Your task to perform on an android device: Go to Yahoo.com Image 0: 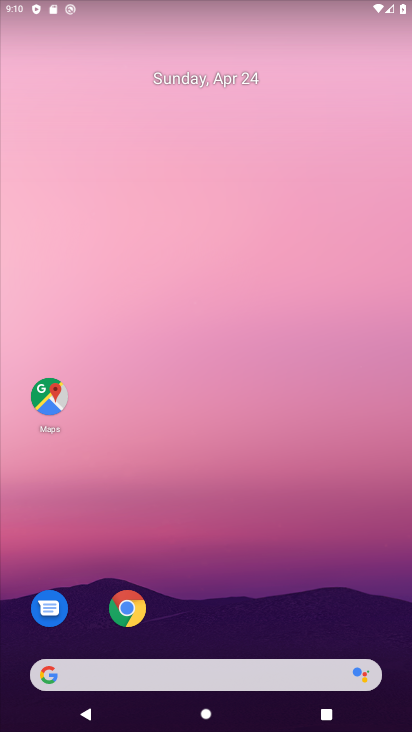
Step 0: press home button
Your task to perform on an android device: Go to Yahoo.com Image 1: 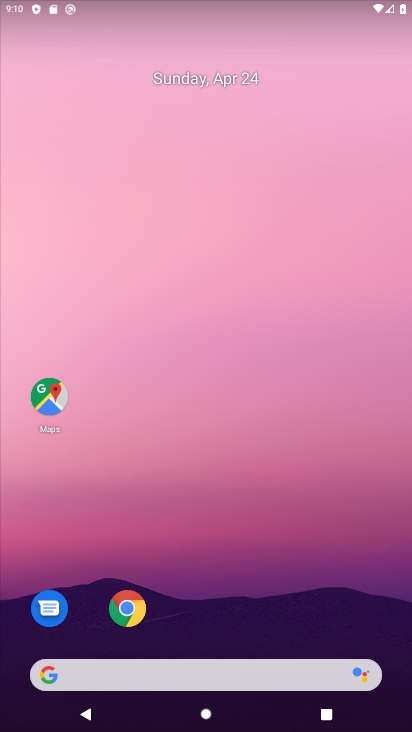
Step 1: drag from (248, 695) to (245, 238)
Your task to perform on an android device: Go to Yahoo.com Image 2: 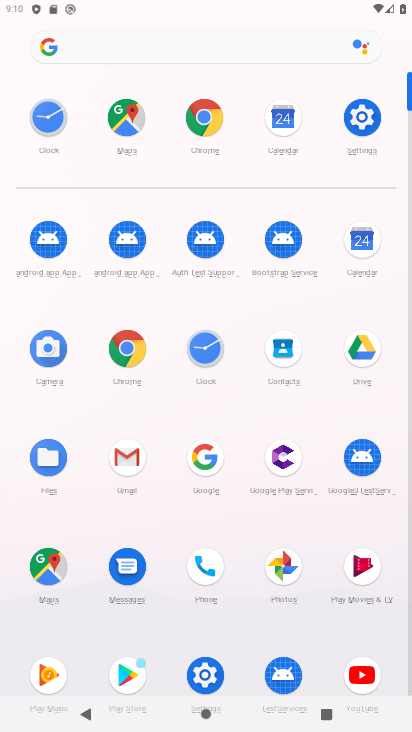
Step 2: click (196, 118)
Your task to perform on an android device: Go to Yahoo.com Image 3: 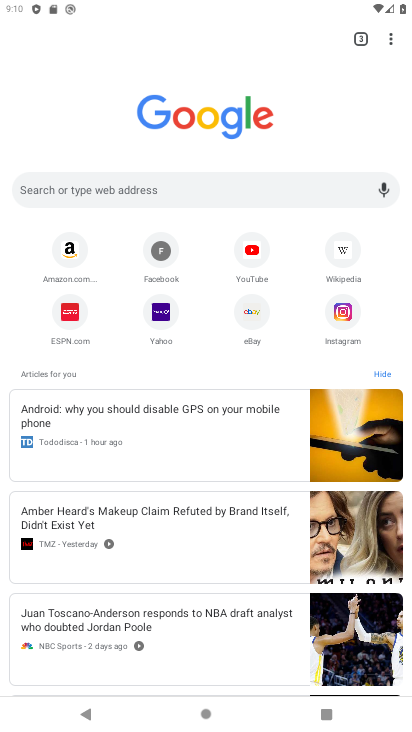
Step 3: click (140, 190)
Your task to perform on an android device: Go to Yahoo.com Image 4: 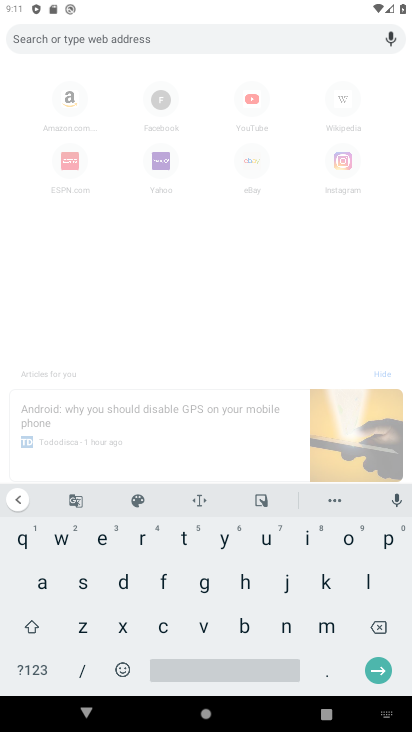
Step 4: drag from (151, 174) to (109, 731)
Your task to perform on an android device: Go to Yahoo.com Image 5: 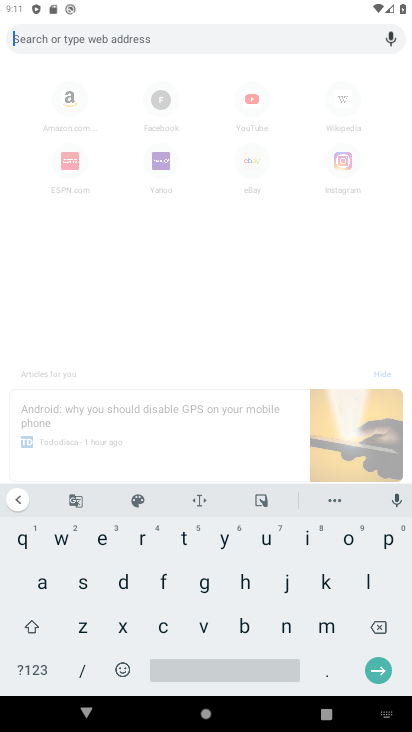
Step 5: click (215, 542)
Your task to perform on an android device: Go to Yahoo.com Image 6: 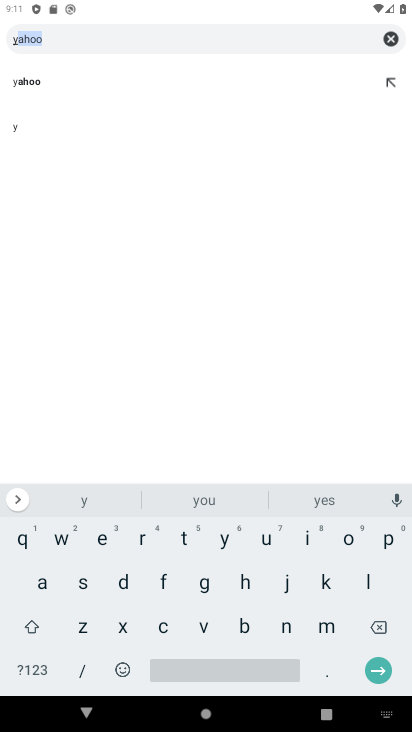
Step 6: click (41, 576)
Your task to perform on an android device: Go to Yahoo.com Image 7: 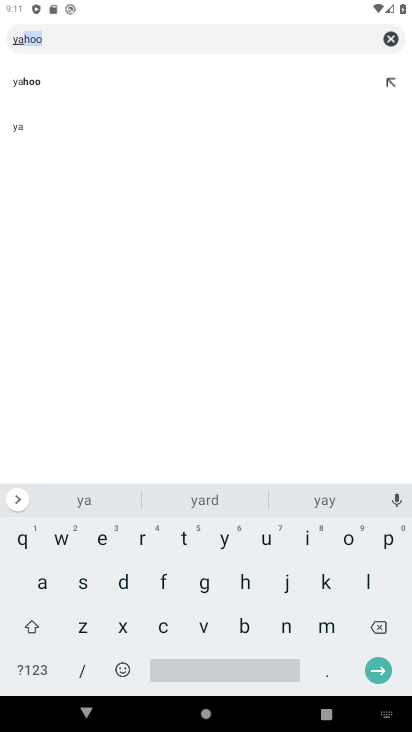
Step 7: click (48, 79)
Your task to perform on an android device: Go to Yahoo.com Image 8: 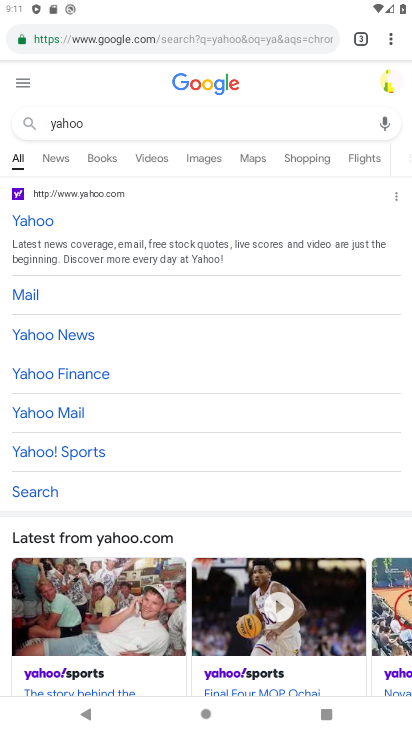
Step 8: click (21, 229)
Your task to perform on an android device: Go to Yahoo.com Image 9: 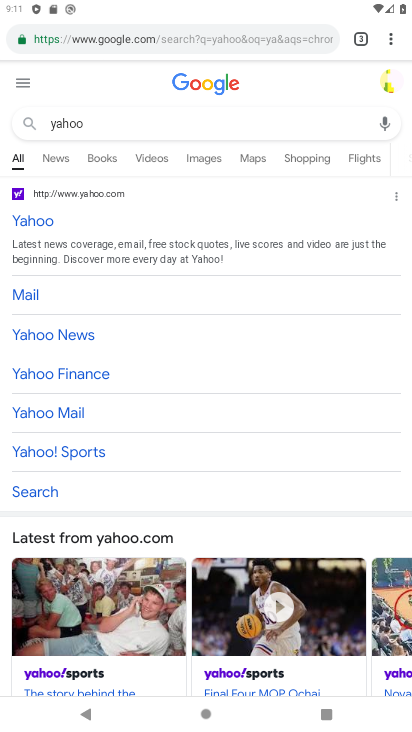
Step 9: click (23, 226)
Your task to perform on an android device: Go to Yahoo.com Image 10: 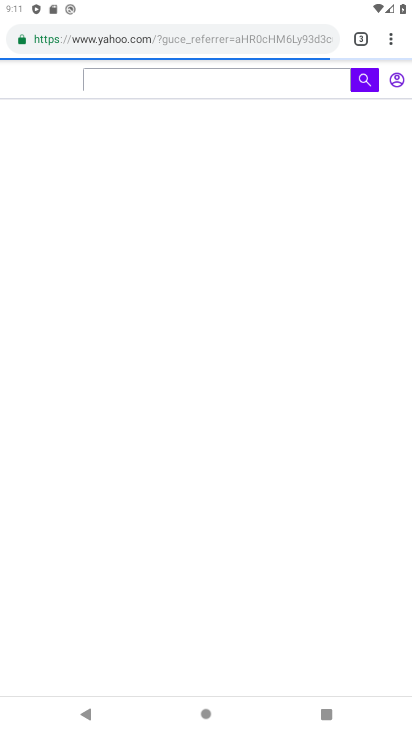
Step 10: task complete